Your task to perform on an android device: turn on notifications settings in the gmail app Image 0: 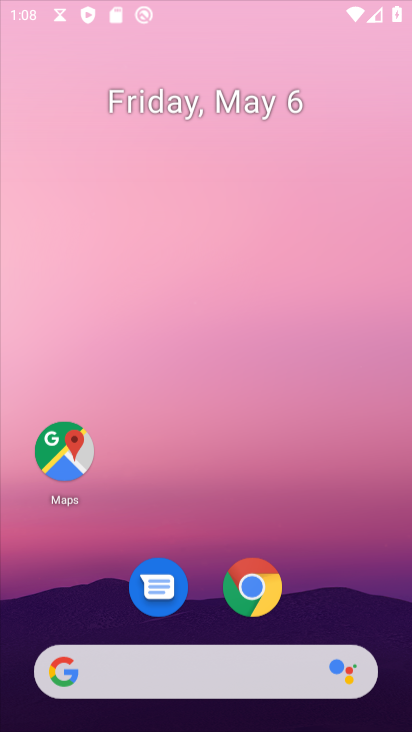
Step 0: drag from (237, 99) to (241, 46)
Your task to perform on an android device: turn on notifications settings in the gmail app Image 1: 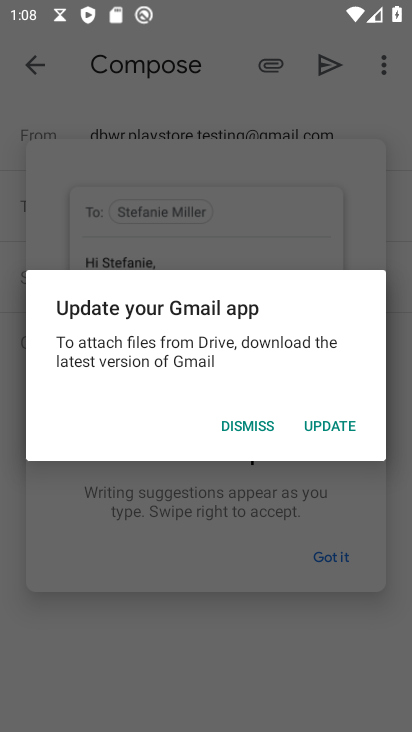
Step 1: press home button
Your task to perform on an android device: turn on notifications settings in the gmail app Image 2: 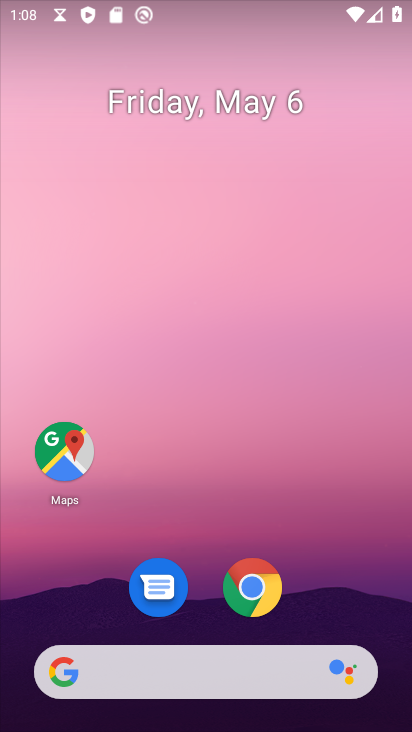
Step 2: drag from (201, 619) to (201, 39)
Your task to perform on an android device: turn on notifications settings in the gmail app Image 3: 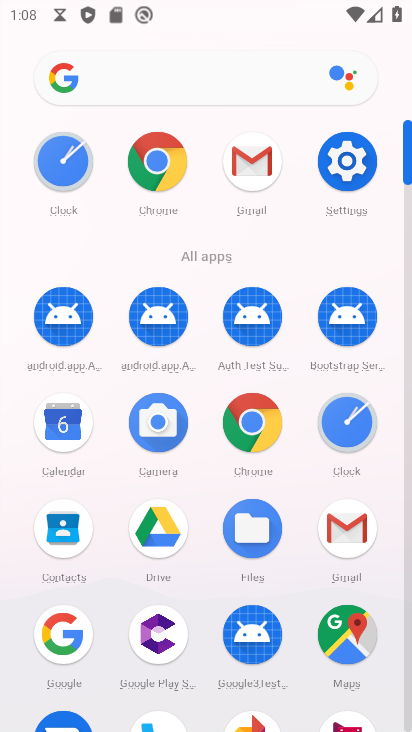
Step 3: click (345, 523)
Your task to perform on an android device: turn on notifications settings in the gmail app Image 4: 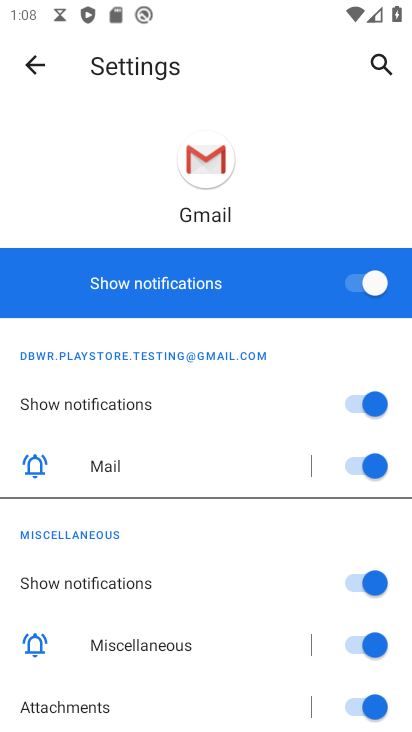
Step 4: task complete